Your task to perform on an android device: turn off picture-in-picture Image 0: 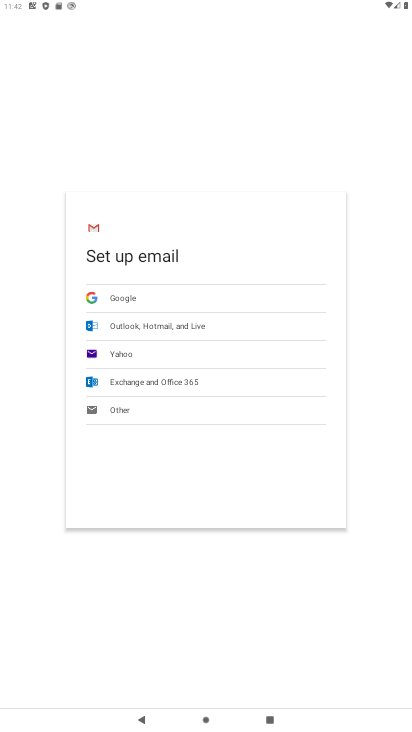
Step 0: press home button
Your task to perform on an android device: turn off picture-in-picture Image 1: 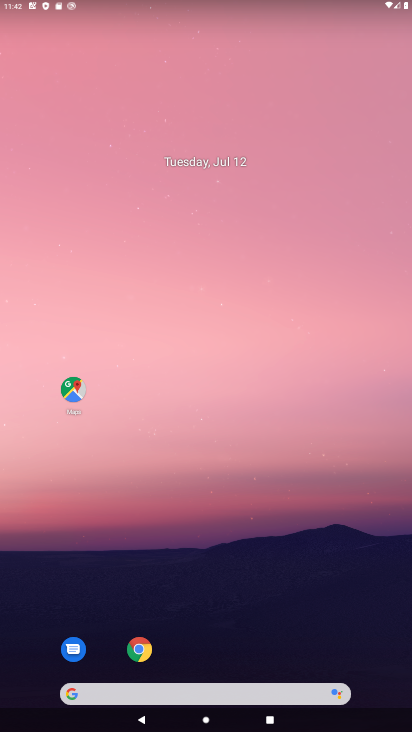
Step 1: click (141, 650)
Your task to perform on an android device: turn off picture-in-picture Image 2: 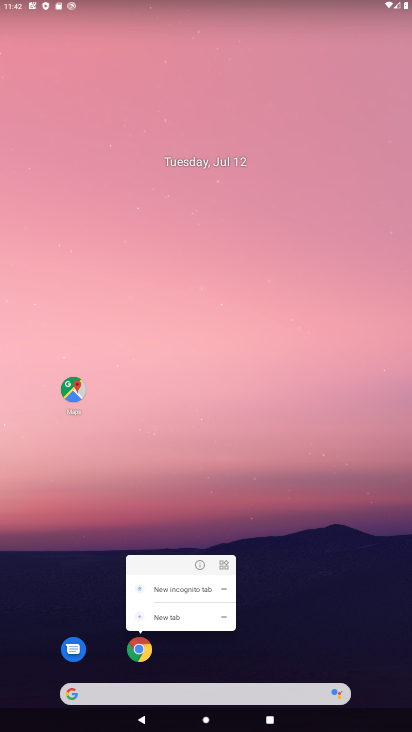
Step 2: click (199, 570)
Your task to perform on an android device: turn off picture-in-picture Image 3: 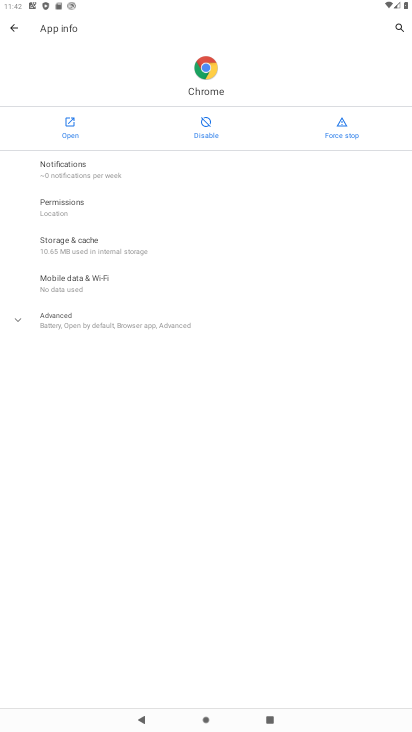
Step 3: click (114, 318)
Your task to perform on an android device: turn off picture-in-picture Image 4: 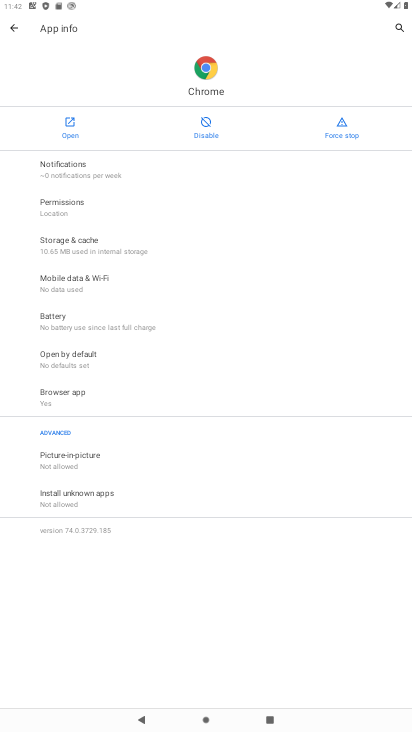
Step 4: click (77, 461)
Your task to perform on an android device: turn off picture-in-picture Image 5: 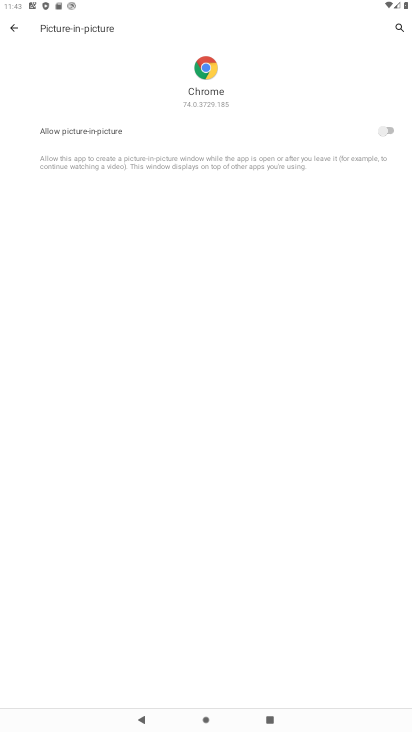
Step 5: task complete